Your task to perform on an android device: Open wifi settings Image 0: 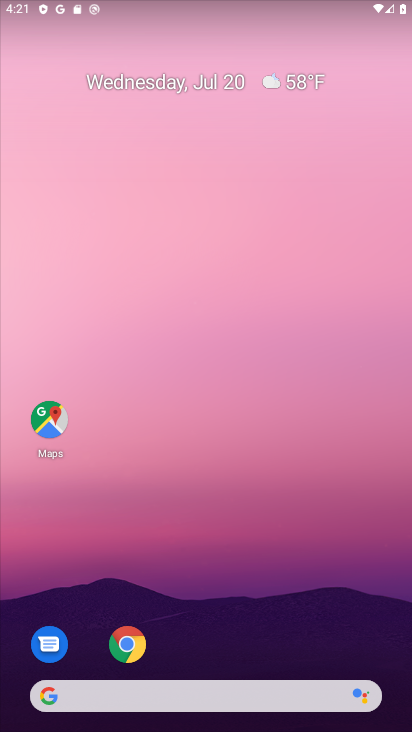
Step 0: press home button
Your task to perform on an android device: Open wifi settings Image 1: 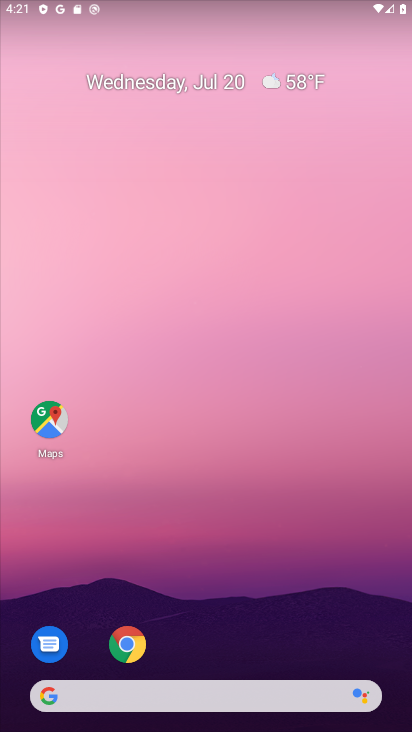
Step 1: drag from (223, 607) to (293, 35)
Your task to perform on an android device: Open wifi settings Image 2: 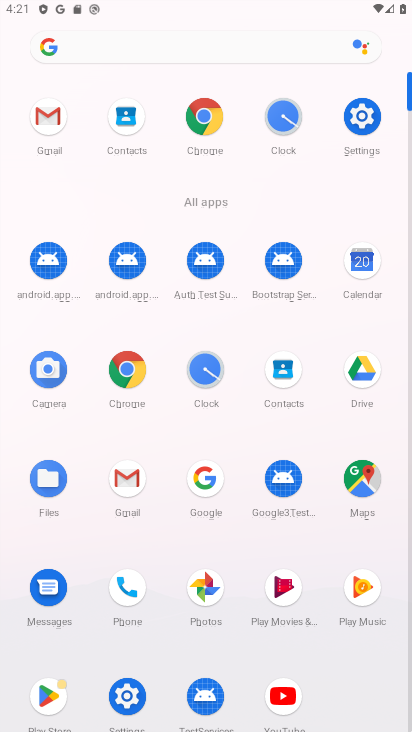
Step 2: click (375, 137)
Your task to perform on an android device: Open wifi settings Image 3: 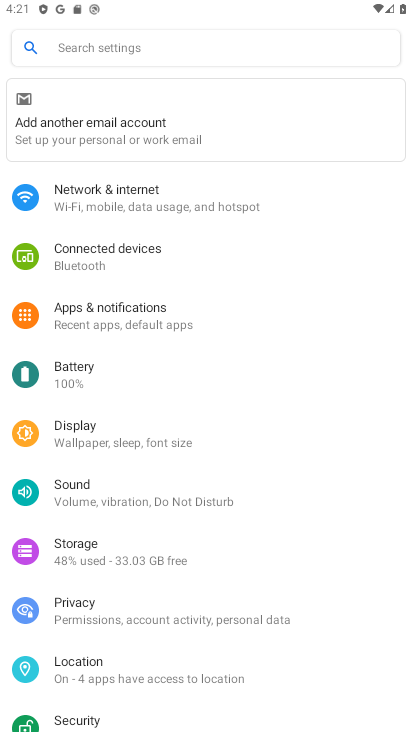
Step 3: click (108, 199)
Your task to perform on an android device: Open wifi settings Image 4: 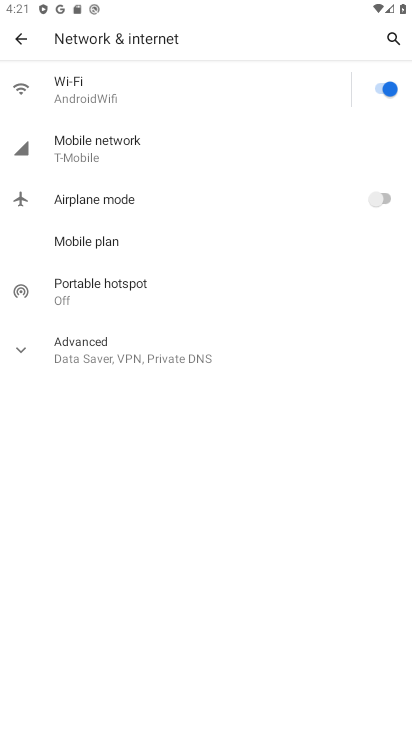
Step 4: click (79, 86)
Your task to perform on an android device: Open wifi settings Image 5: 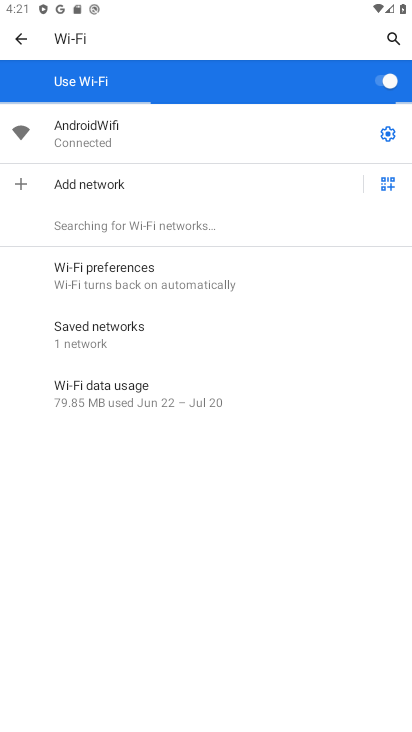
Step 5: task complete